Your task to perform on an android device: Play the last video I watched on Youtube Image 0: 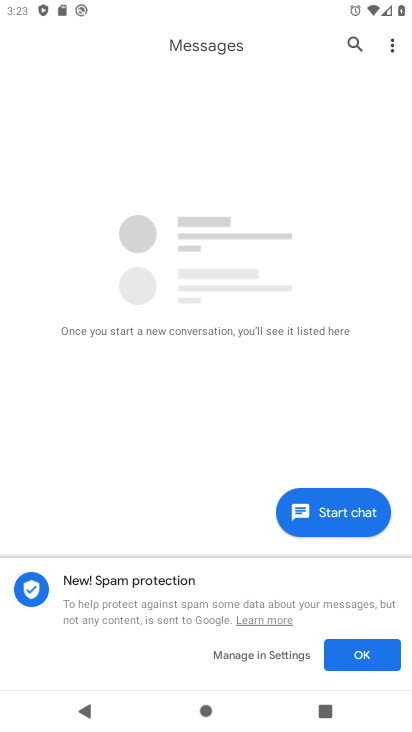
Step 0: press home button
Your task to perform on an android device: Play the last video I watched on Youtube Image 1: 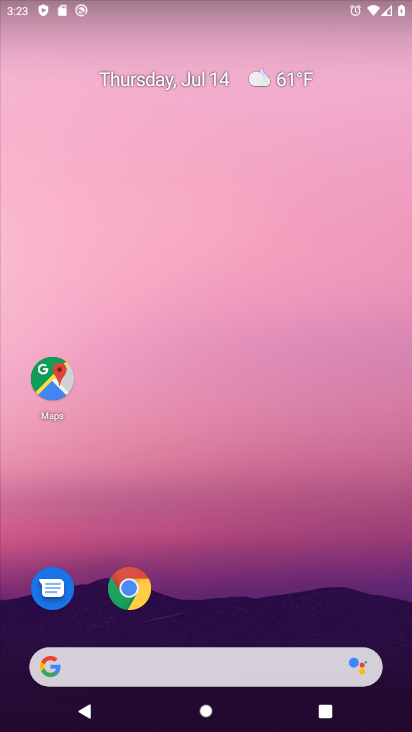
Step 1: drag from (229, 541) to (329, 149)
Your task to perform on an android device: Play the last video I watched on Youtube Image 2: 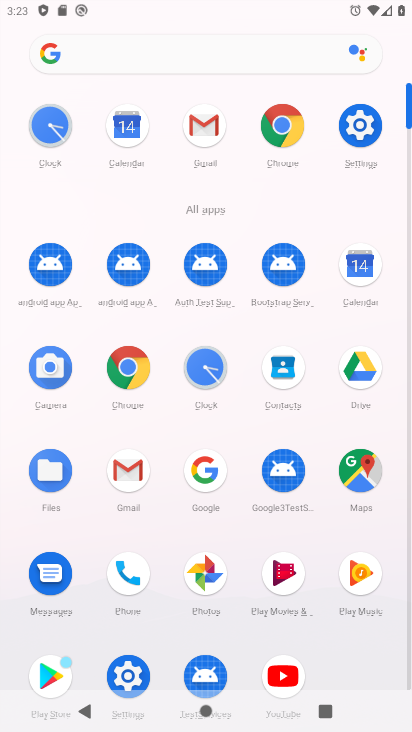
Step 2: click (280, 679)
Your task to perform on an android device: Play the last video I watched on Youtube Image 3: 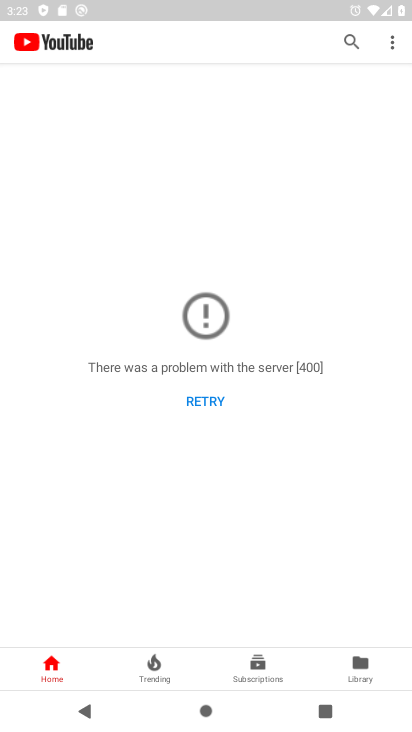
Step 3: click (363, 665)
Your task to perform on an android device: Play the last video I watched on Youtube Image 4: 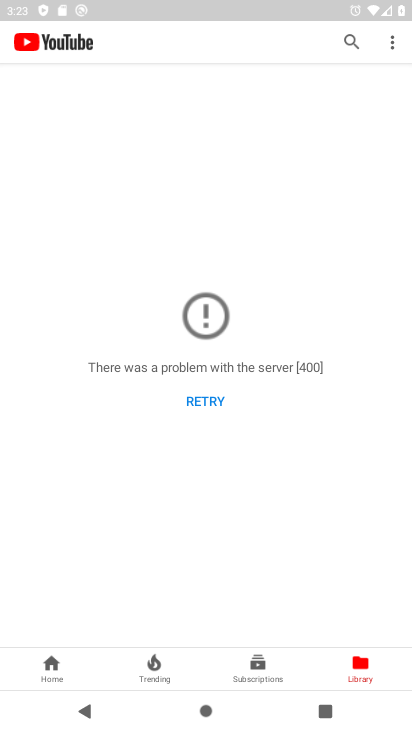
Step 4: task complete